Your task to perform on an android device: turn off airplane mode Image 0: 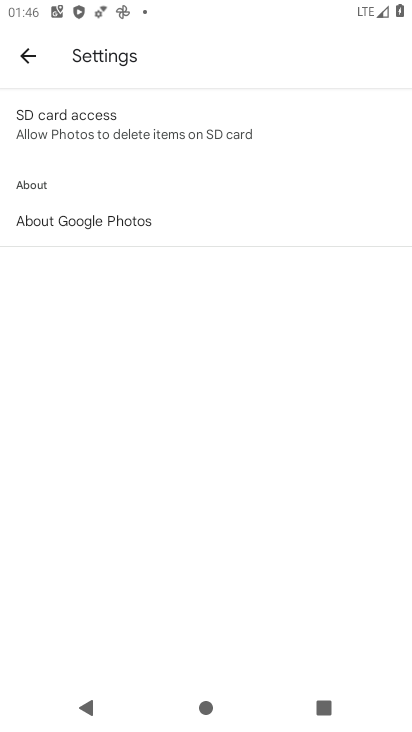
Step 0: press home button
Your task to perform on an android device: turn off airplane mode Image 1: 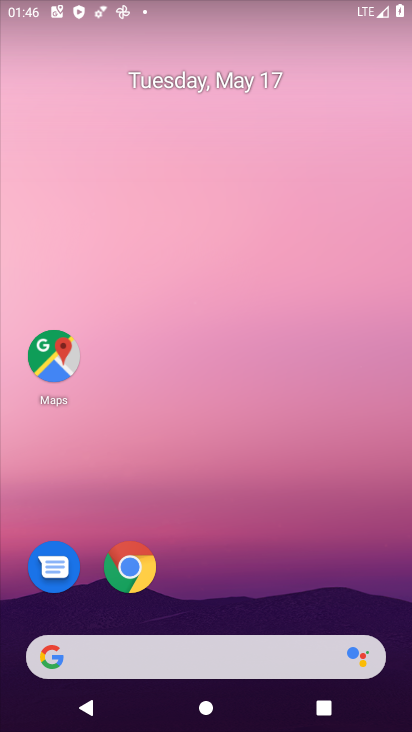
Step 1: drag from (387, 619) to (291, 37)
Your task to perform on an android device: turn off airplane mode Image 2: 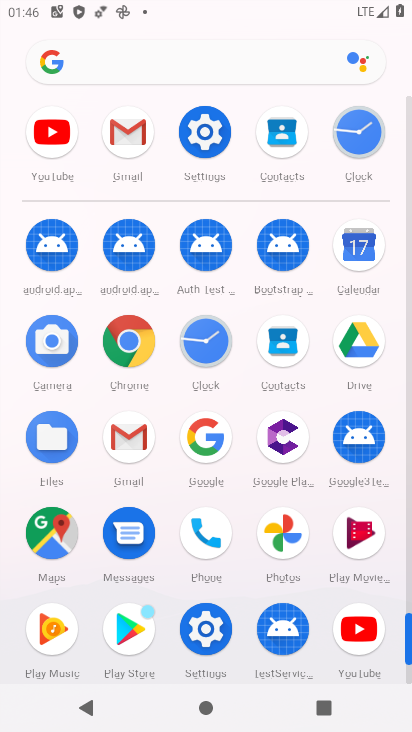
Step 2: click (205, 629)
Your task to perform on an android device: turn off airplane mode Image 3: 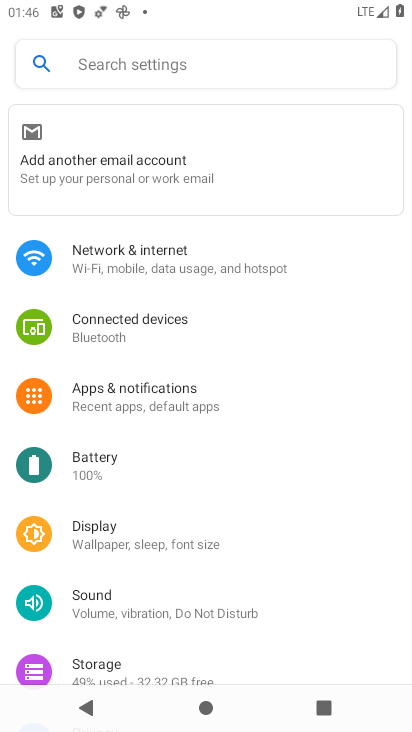
Step 3: click (113, 255)
Your task to perform on an android device: turn off airplane mode Image 4: 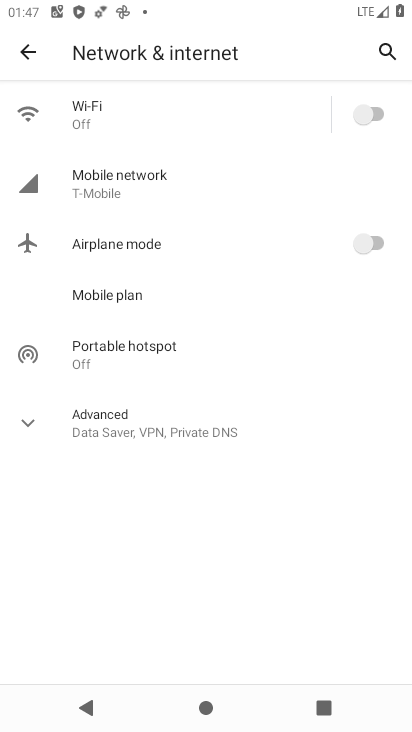
Step 4: task complete